Your task to perform on an android device: Open Youtube and go to "Your channel" Image 0: 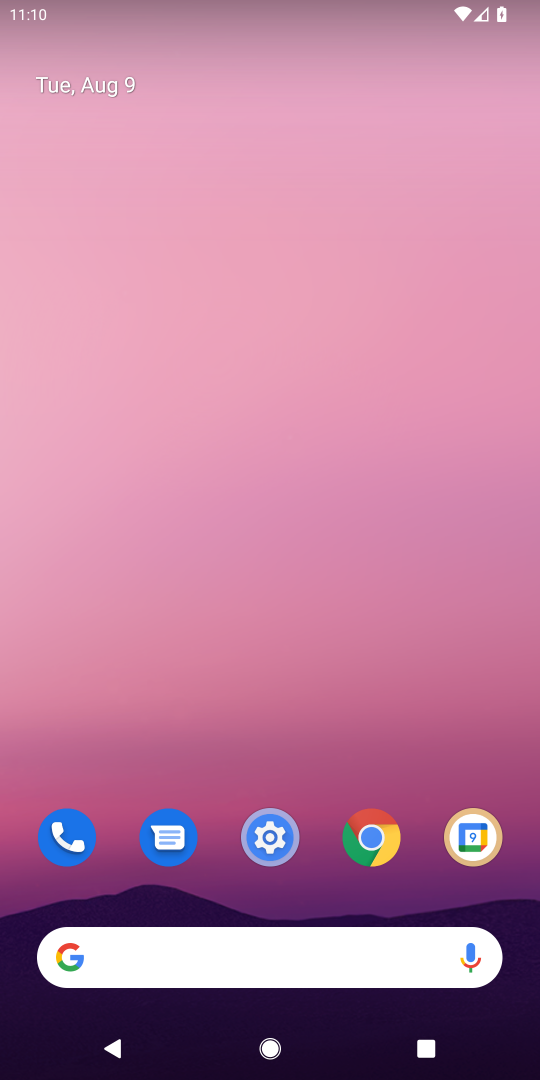
Step 0: drag from (321, 904) to (328, 24)
Your task to perform on an android device: Open Youtube and go to "Your channel" Image 1: 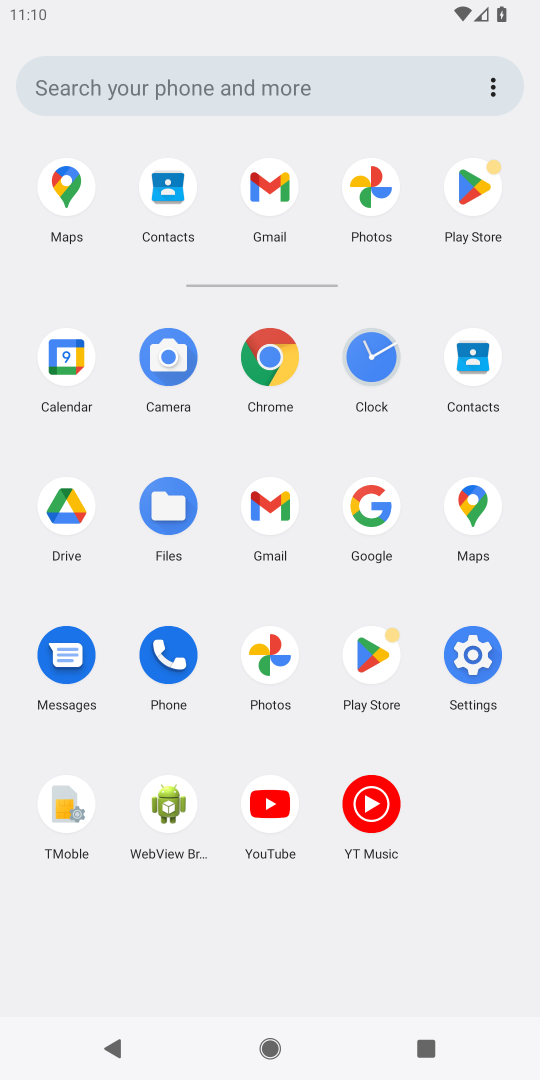
Step 1: click (273, 809)
Your task to perform on an android device: Open Youtube and go to "Your channel" Image 2: 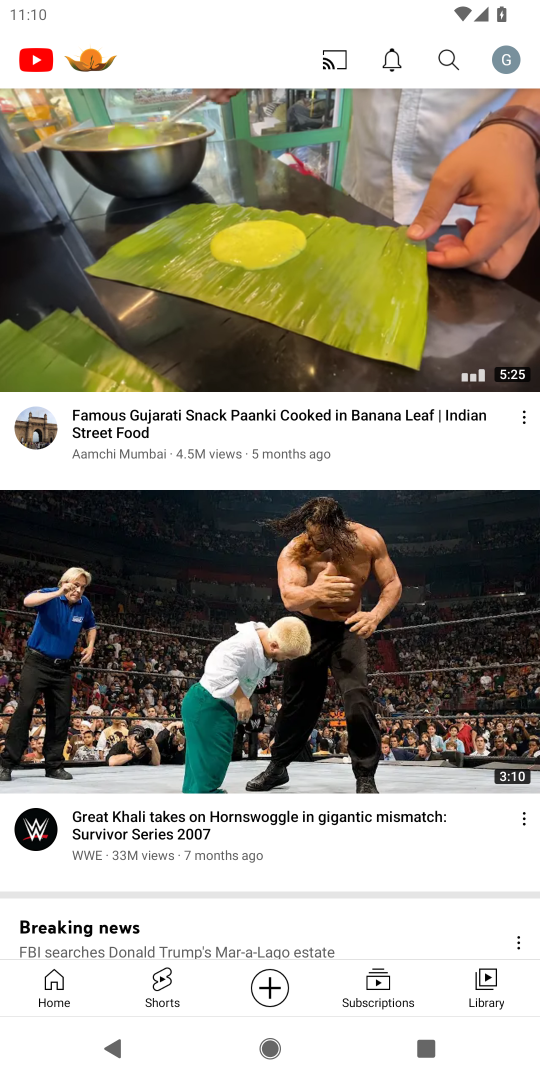
Step 2: click (509, 58)
Your task to perform on an android device: Open Youtube and go to "Your channel" Image 3: 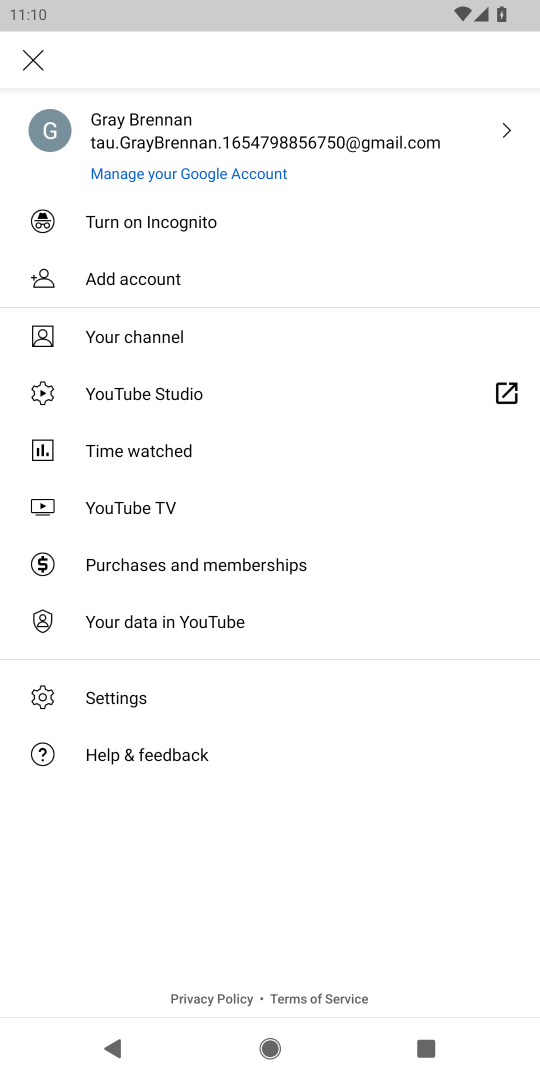
Step 3: click (148, 339)
Your task to perform on an android device: Open Youtube and go to "Your channel" Image 4: 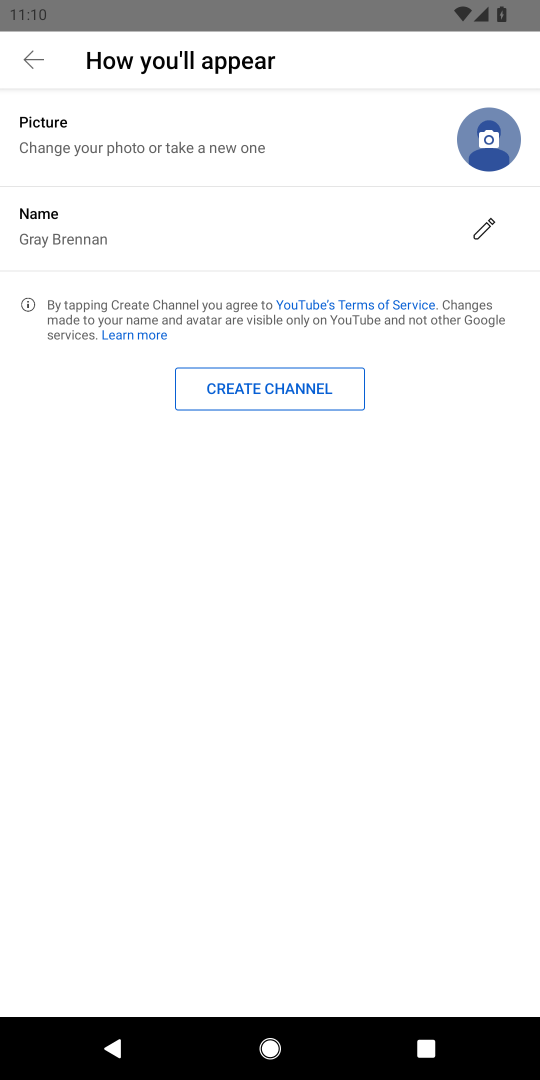
Step 4: task complete